Your task to perform on an android device: Open calendar and show me the first week of next month Image 0: 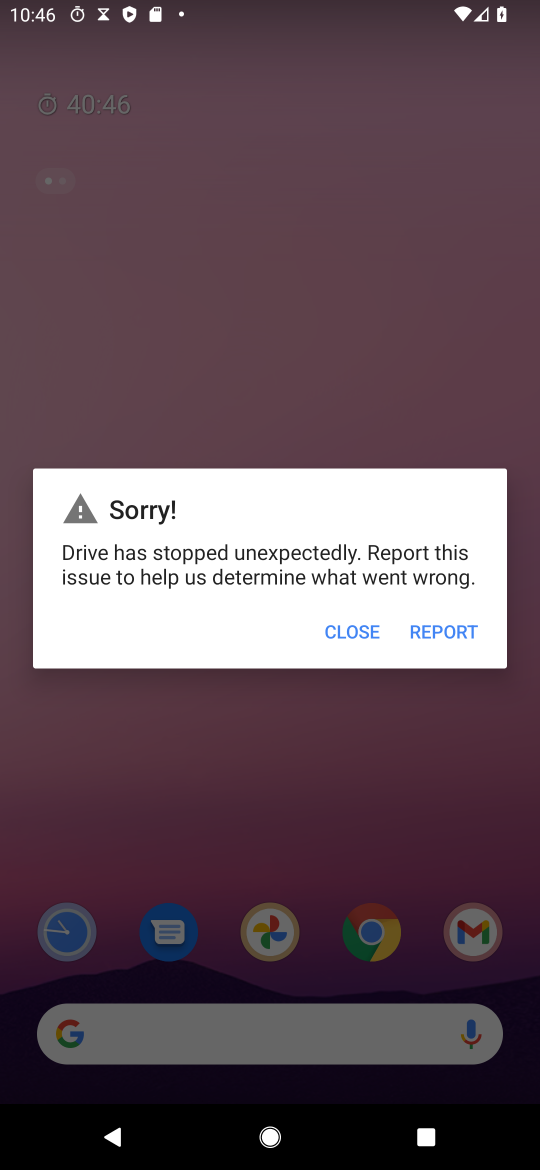
Step 0: press back button
Your task to perform on an android device: Open calendar and show me the first week of next month Image 1: 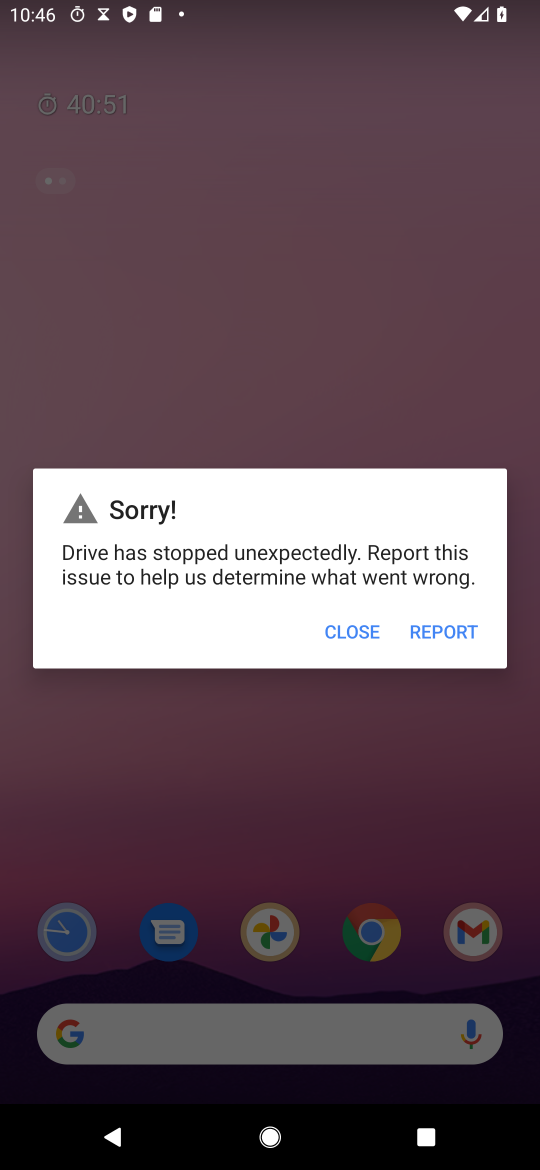
Step 1: press home button
Your task to perform on an android device: Open calendar and show me the first week of next month Image 2: 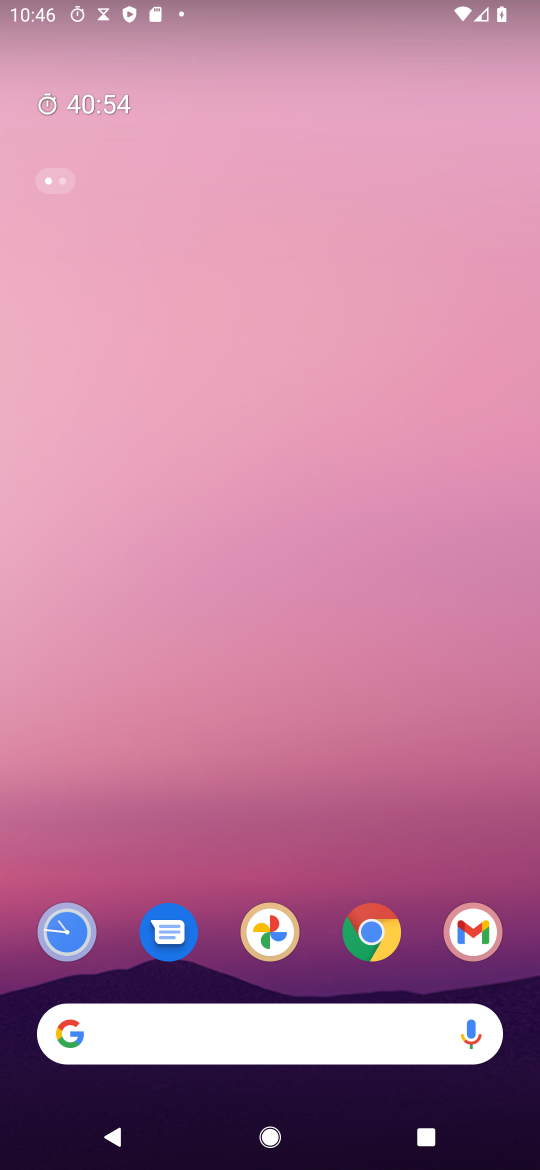
Step 2: drag from (313, 858) to (291, 78)
Your task to perform on an android device: Open calendar and show me the first week of next month Image 3: 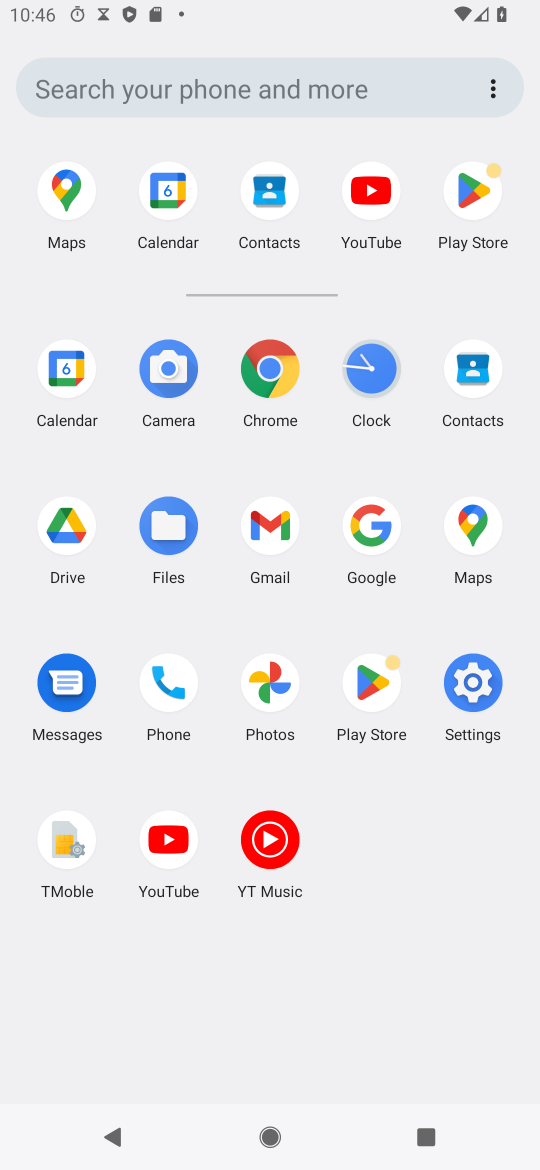
Step 3: click (62, 387)
Your task to perform on an android device: Open calendar and show me the first week of next month Image 4: 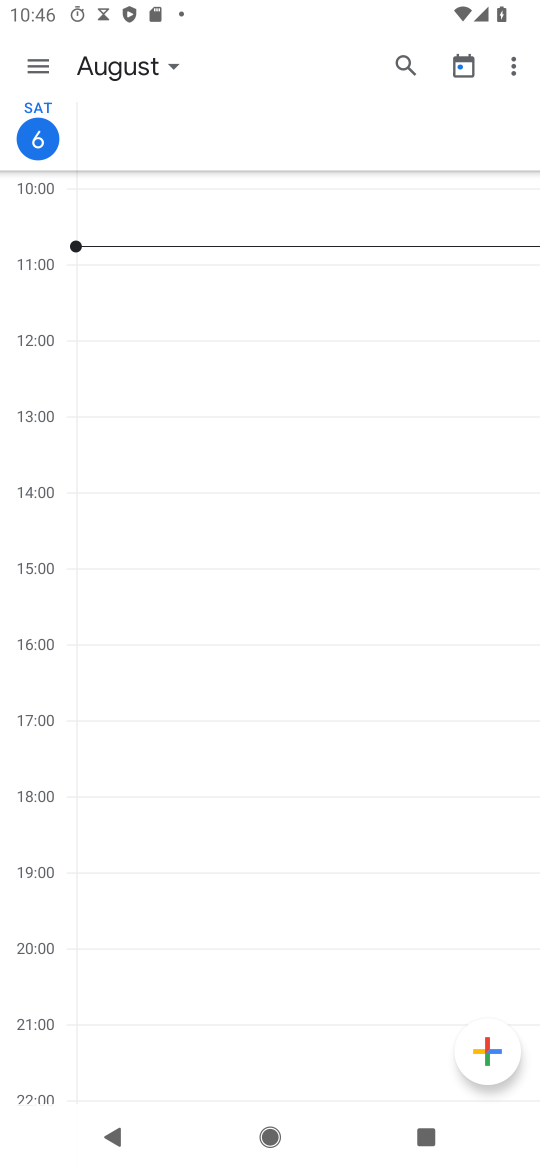
Step 4: click (46, 68)
Your task to perform on an android device: Open calendar and show me the first week of next month Image 5: 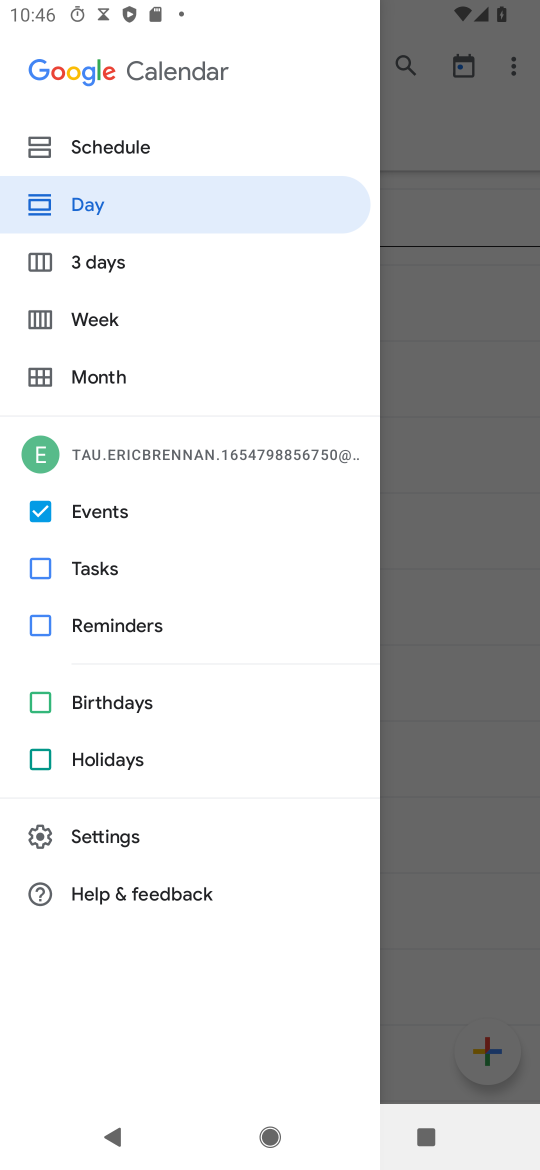
Step 5: click (120, 314)
Your task to perform on an android device: Open calendar and show me the first week of next month Image 6: 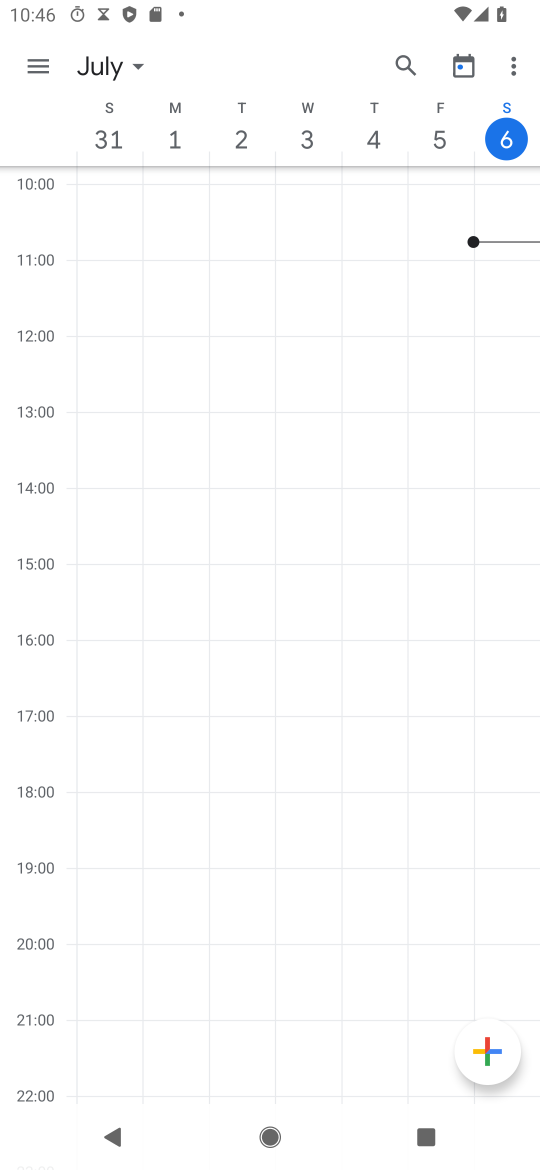
Step 6: click (128, 69)
Your task to perform on an android device: Open calendar and show me the first week of next month Image 7: 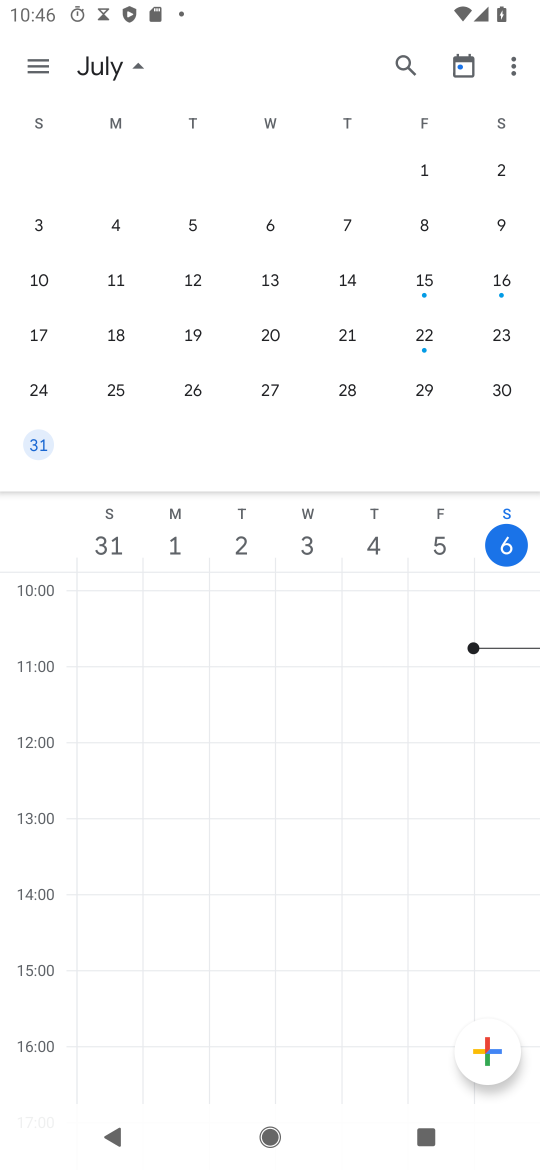
Step 7: drag from (516, 298) to (43, 325)
Your task to perform on an android device: Open calendar and show me the first week of next month Image 8: 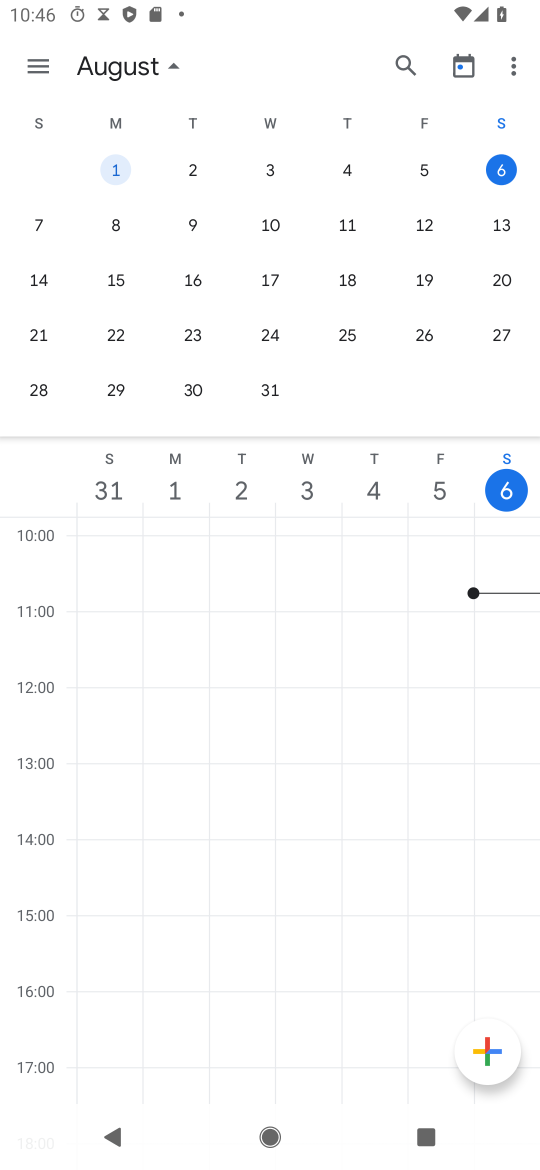
Step 8: drag from (517, 265) to (93, 268)
Your task to perform on an android device: Open calendar and show me the first week of next month Image 9: 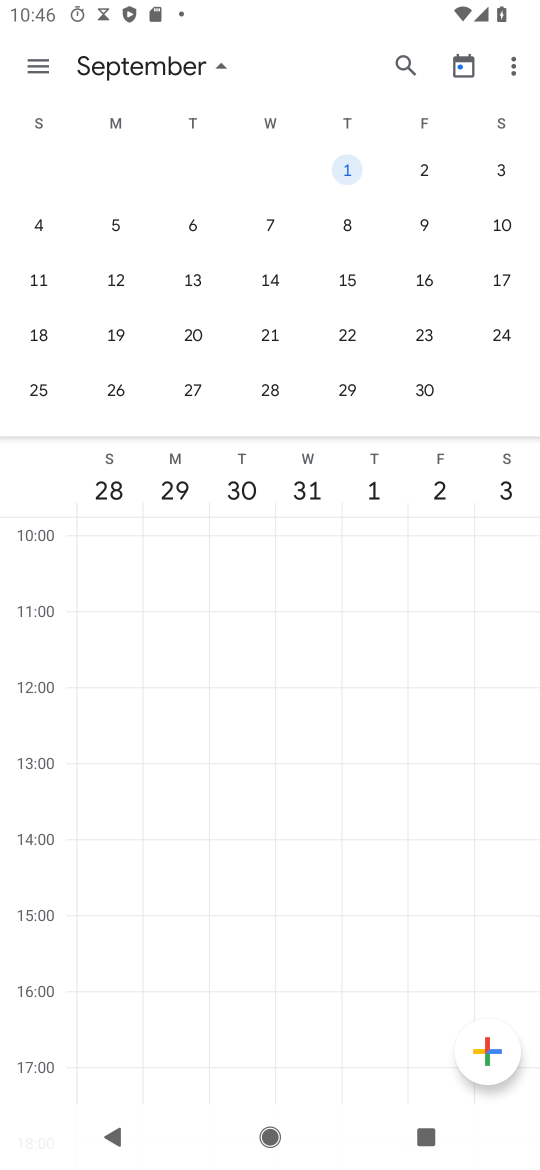
Step 9: click (317, 236)
Your task to perform on an android device: Open calendar and show me the first week of next month Image 10: 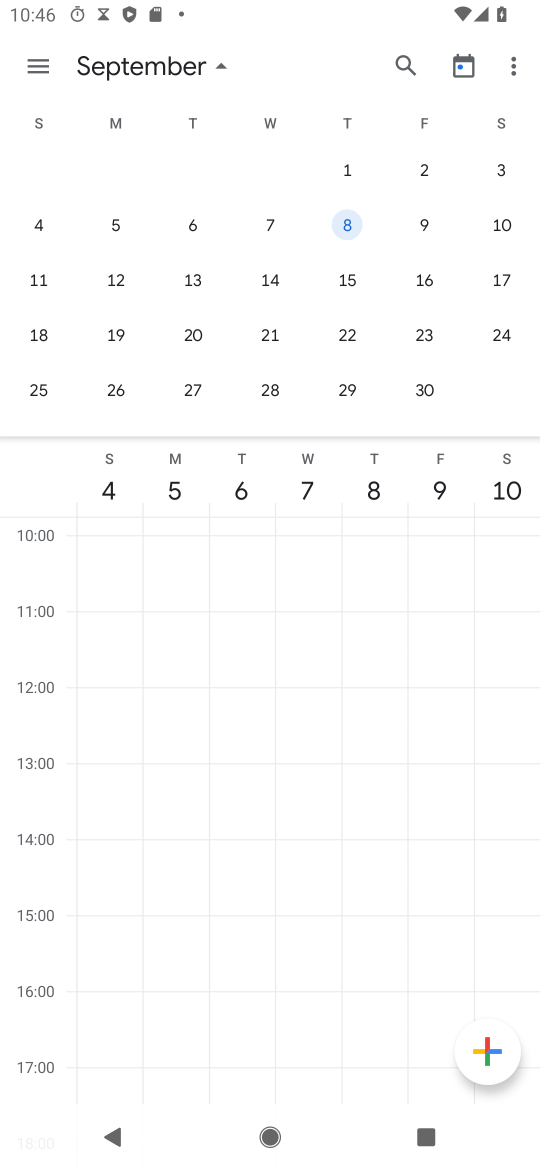
Step 10: task complete